Your task to perform on an android device: change alarm snooze length Image 0: 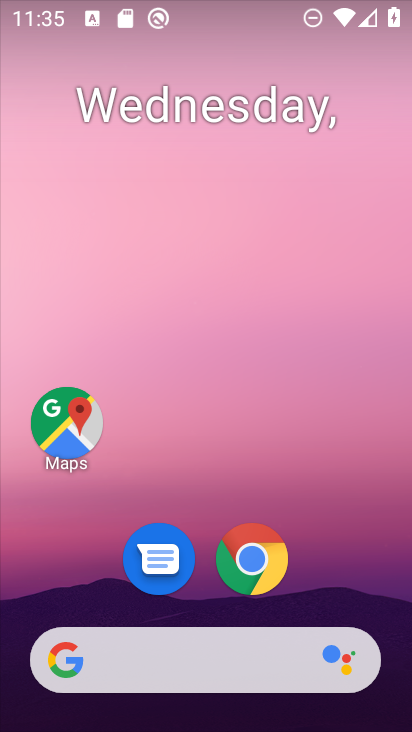
Step 0: drag from (197, 635) to (269, 130)
Your task to perform on an android device: change alarm snooze length Image 1: 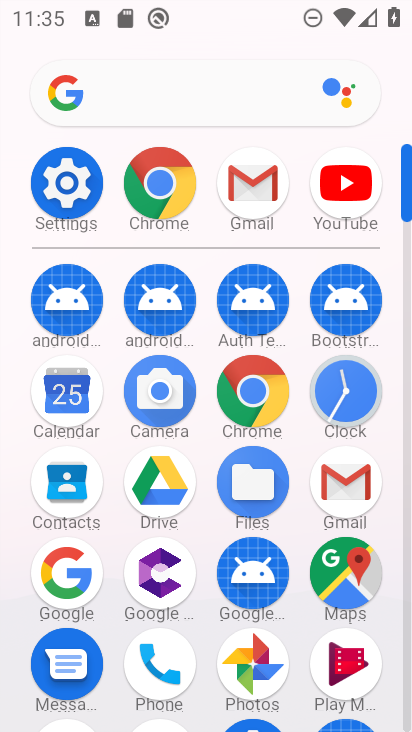
Step 1: click (363, 402)
Your task to perform on an android device: change alarm snooze length Image 2: 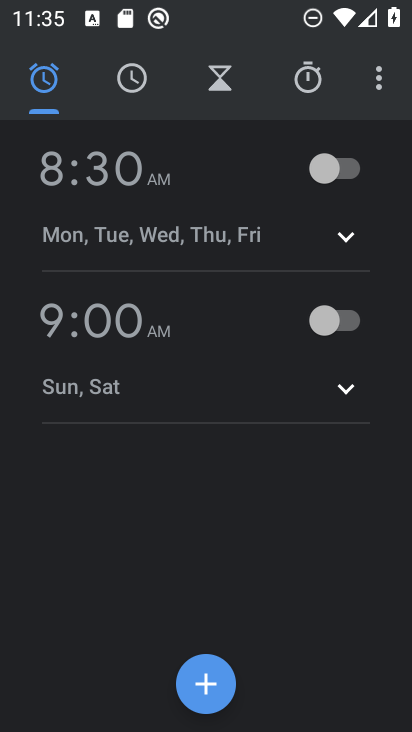
Step 2: click (378, 76)
Your task to perform on an android device: change alarm snooze length Image 3: 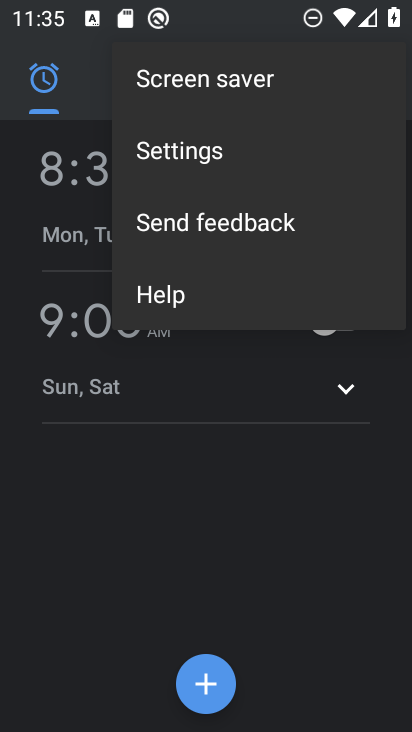
Step 3: click (229, 147)
Your task to perform on an android device: change alarm snooze length Image 4: 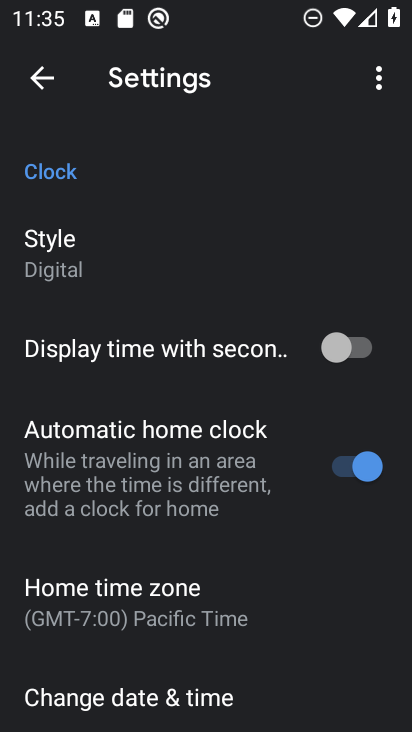
Step 4: drag from (209, 561) to (233, 215)
Your task to perform on an android device: change alarm snooze length Image 5: 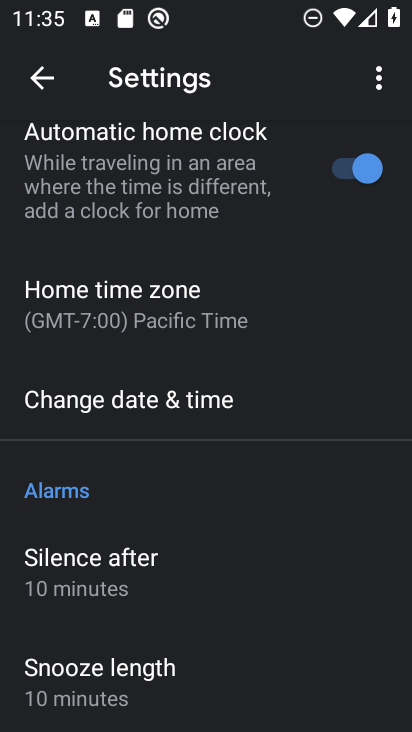
Step 5: click (174, 673)
Your task to perform on an android device: change alarm snooze length Image 6: 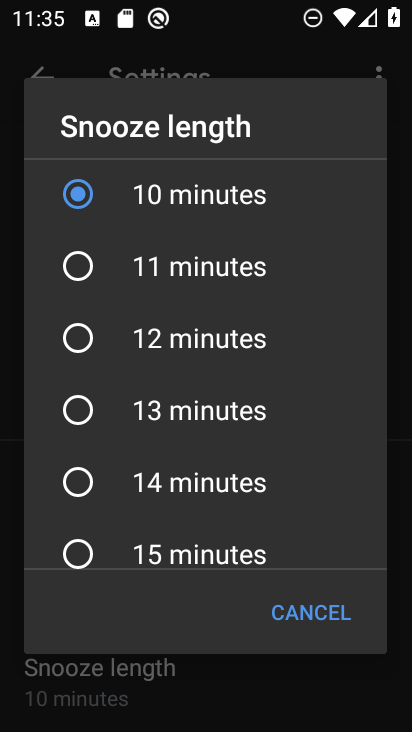
Step 6: click (78, 344)
Your task to perform on an android device: change alarm snooze length Image 7: 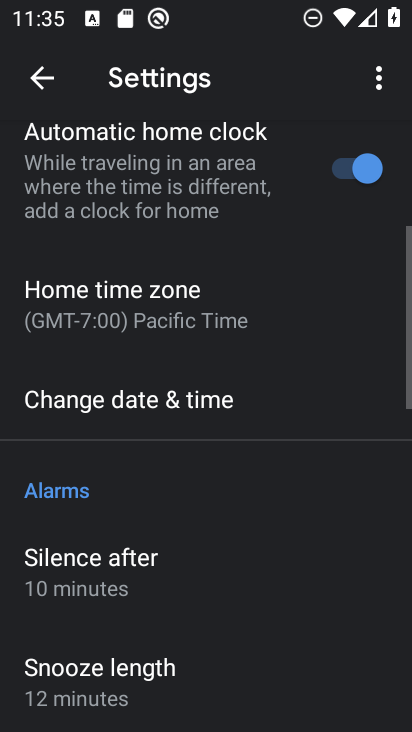
Step 7: task complete